Your task to perform on an android device: uninstall "Chime – Mobile Banking" Image 0: 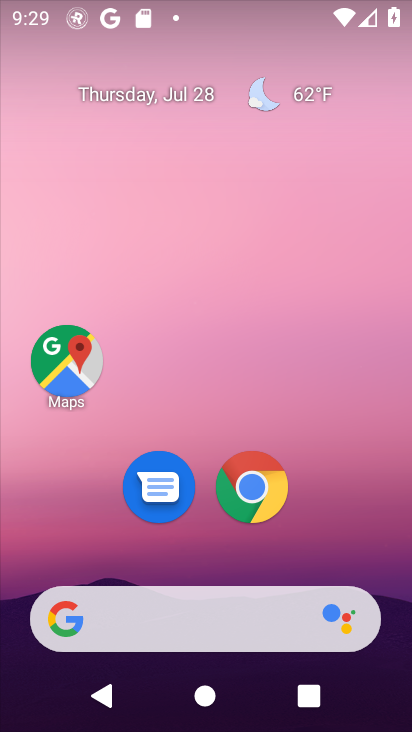
Step 0: click (295, 304)
Your task to perform on an android device: uninstall "Chime – Mobile Banking" Image 1: 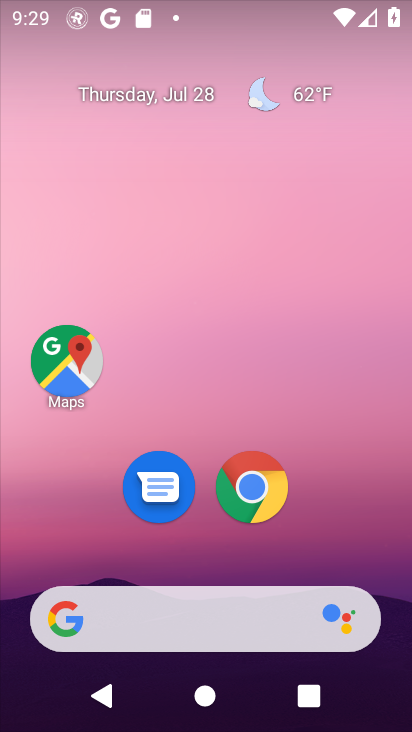
Step 1: drag from (293, 566) to (244, 139)
Your task to perform on an android device: uninstall "Chime – Mobile Banking" Image 2: 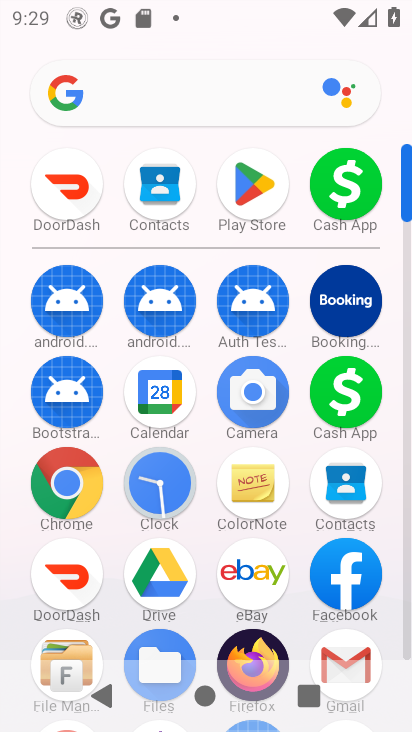
Step 2: drag from (295, 621) to (272, 226)
Your task to perform on an android device: uninstall "Chime – Mobile Banking" Image 3: 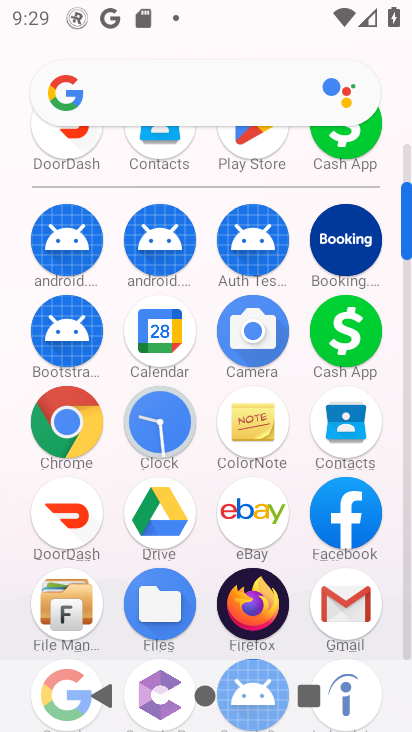
Step 3: click (236, 136)
Your task to perform on an android device: uninstall "Chime – Mobile Banking" Image 4: 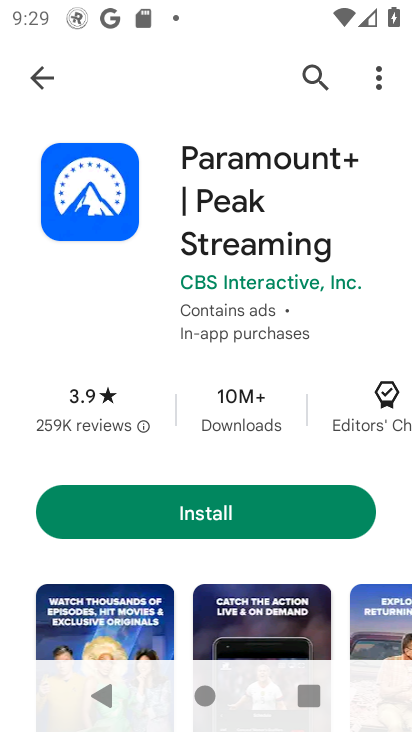
Step 4: click (29, 78)
Your task to perform on an android device: uninstall "Chime – Mobile Banking" Image 5: 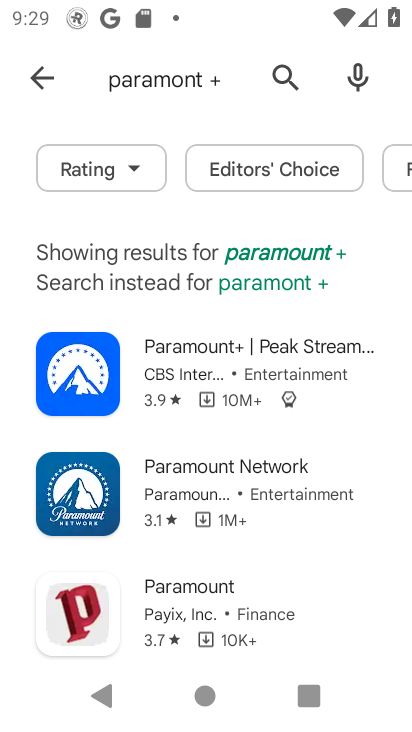
Step 5: click (48, 76)
Your task to perform on an android device: uninstall "Chime – Mobile Banking" Image 6: 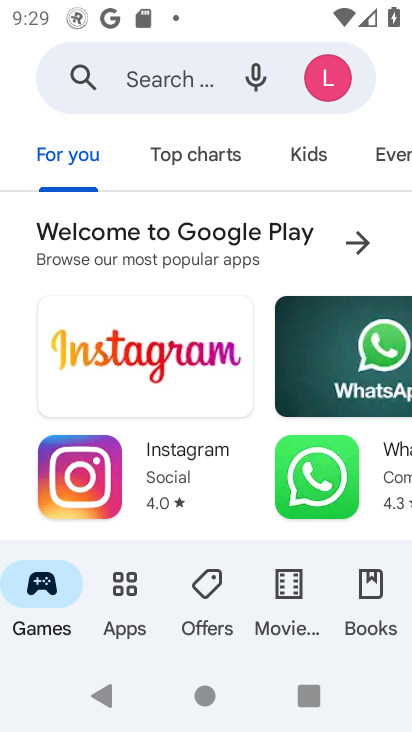
Step 6: click (123, 75)
Your task to perform on an android device: uninstall "Chime – Mobile Banking" Image 7: 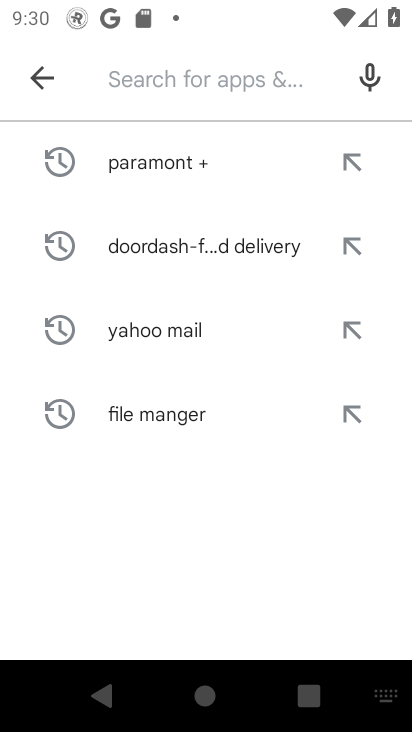
Step 7: type "Chime - Mobile Banking"
Your task to perform on an android device: uninstall "Chime – Mobile Banking" Image 8: 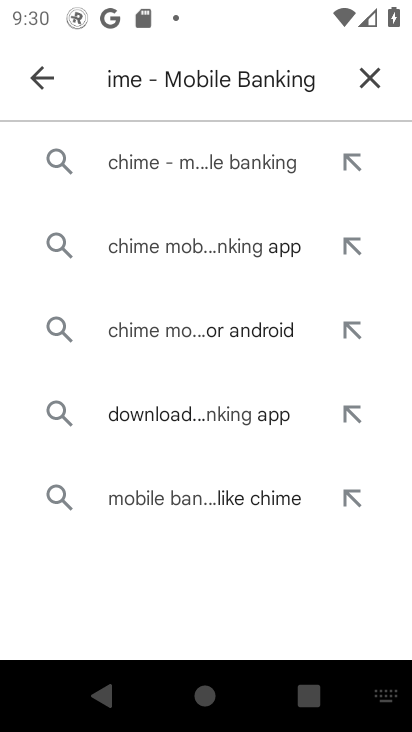
Step 8: click (270, 165)
Your task to perform on an android device: uninstall "Chime – Mobile Banking" Image 9: 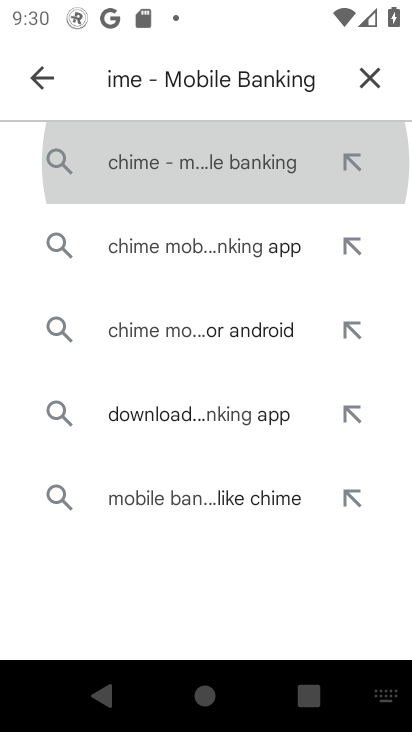
Step 9: click (270, 165)
Your task to perform on an android device: uninstall "Chime – Mobile Banking" Image 10: 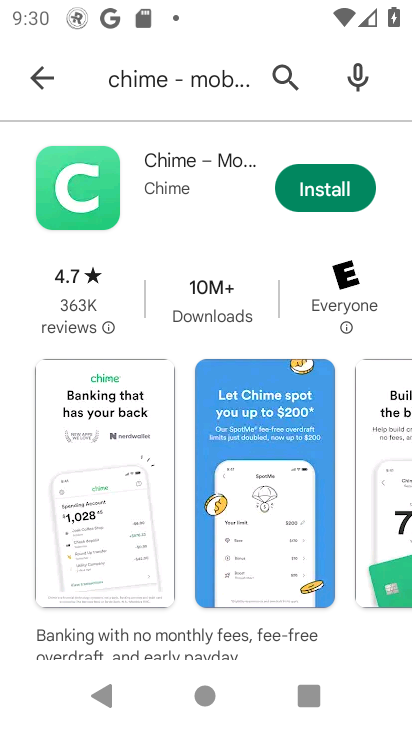
Step 10: click (311, 189)
Your task to perform on an android device: uninstall "Chime – Mobile Banking" Image 11: 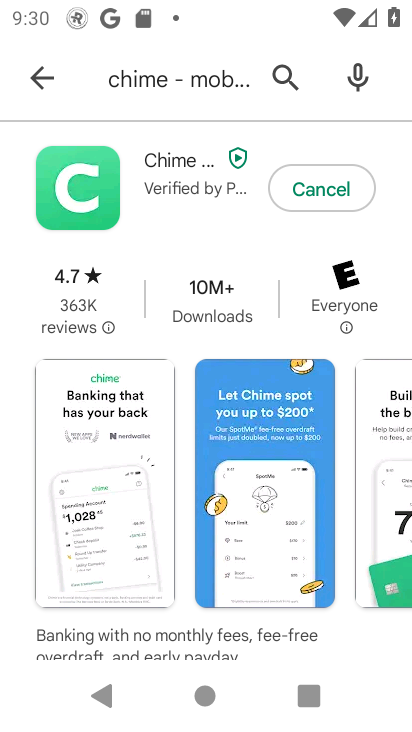
Step 11: click (313, 189)
Your task to perform on an android device: uninstall "Chime – Mobile Banking" Image 12: 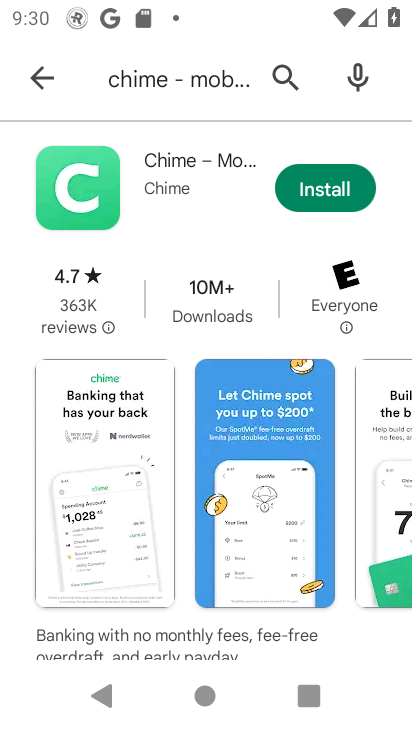
Step 12: task complete